Your task to perform on an android device: open a bookmark in the chrome app Image 0: 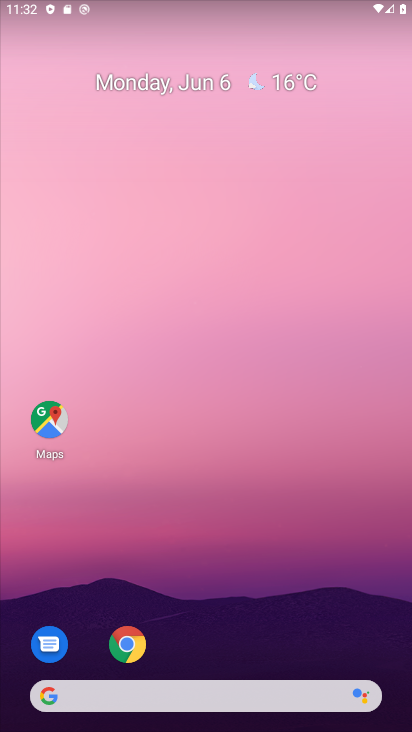
Step 0: click (128, 660)
Your task to perform on an android device: open a bookmark in the chrome app Image 1: 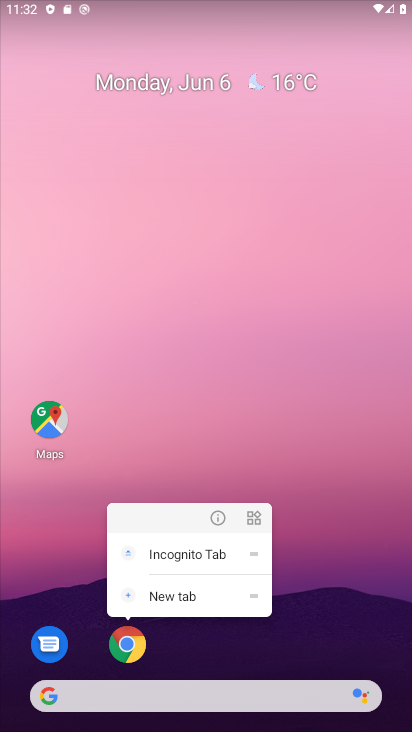
Step 1: click (130, 649)
Your task to perform on an android device: open a bookmark in the chrome app Image 2: 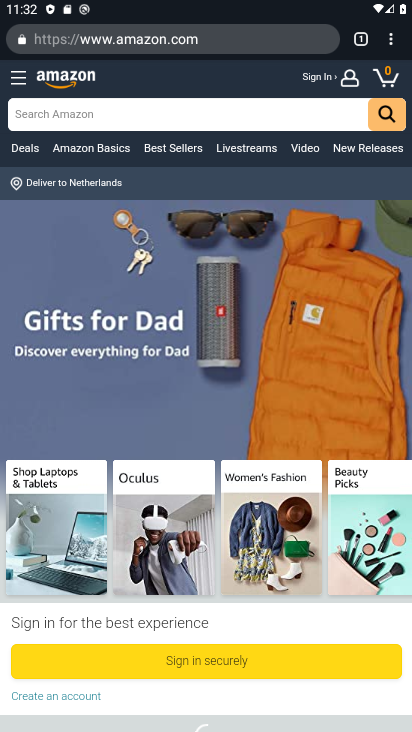
Step 2: task complete